Your task to perform on an android device: Go to settings Image 0: 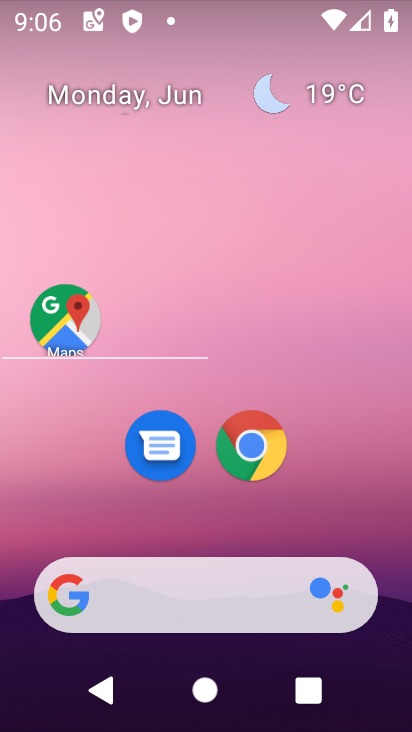
Step 0: press home button
Your task to perform on an android device: Go to settings Image 1: 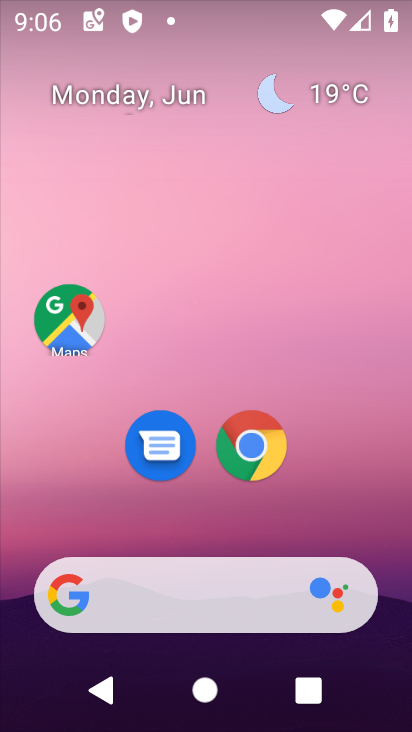
Step 1: drag from (216, 522) to (187, 30)
Your task to perform on an android device: Go to settings Image 2: 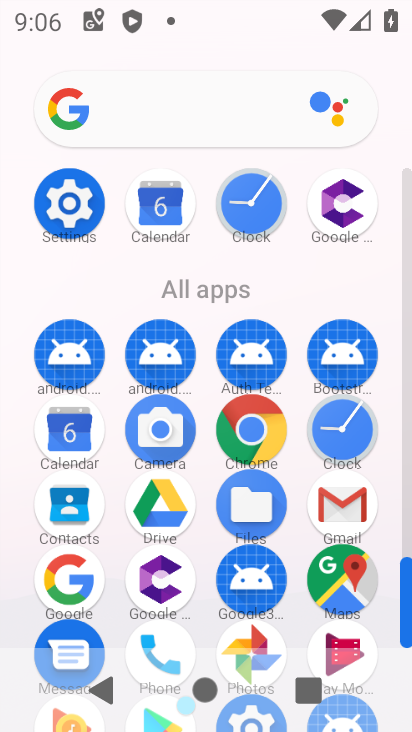
Step 2: click (66, 197)
Your task to perform on an android device: Go to settings Image 3: 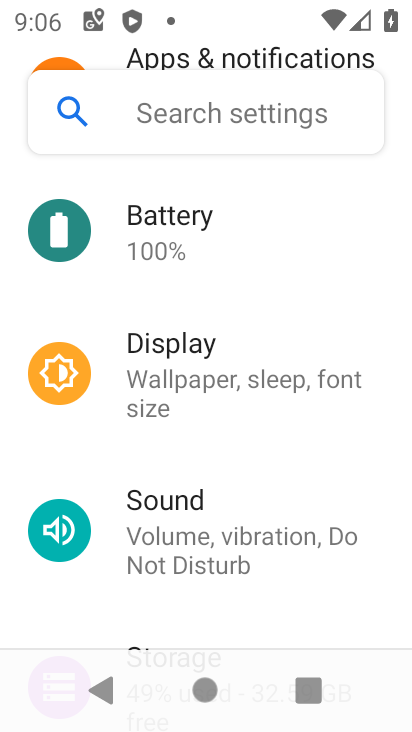
Step 3: task complete